Your task to perform on an android device: open device folders in google photos Image 0: 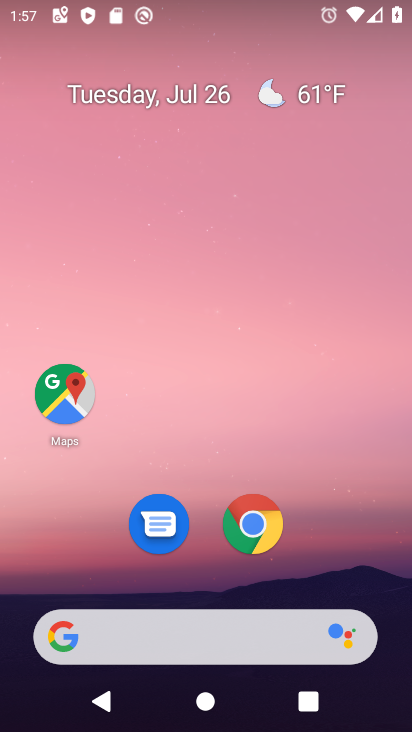
Step 0: press home button
Your task to perform on an android device: open device folders in google photos Image 1: 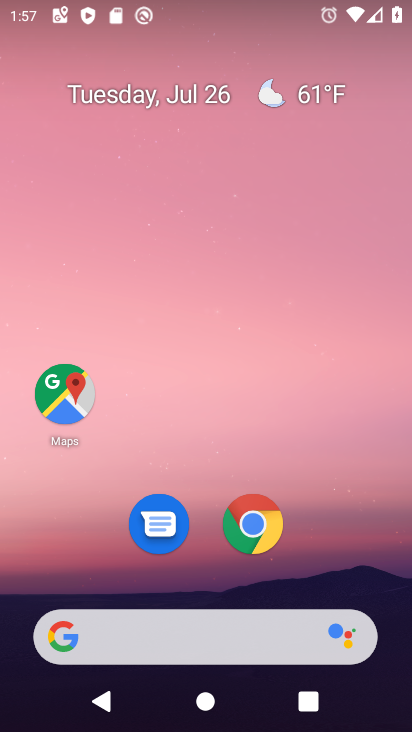
Step 1: drag from (217, 633) to (257, 88)
Your task to perform on an android device: open device folders in google photos Image 2: 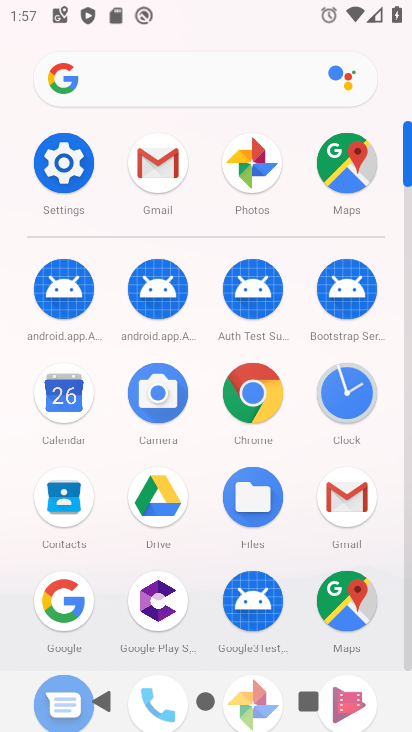
Step 2: click (253, 171)
Your task to perform on an android device: open device folders in google photos Image 3: 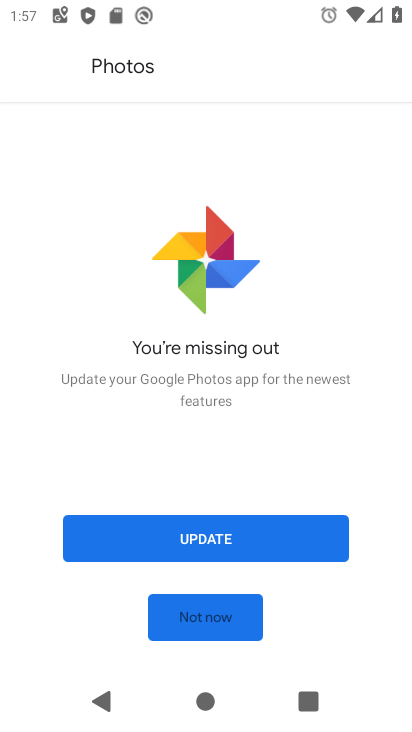
Step 3: click (199, 629)
Your task to perform on an android device: open device folders in google photos Image 4: 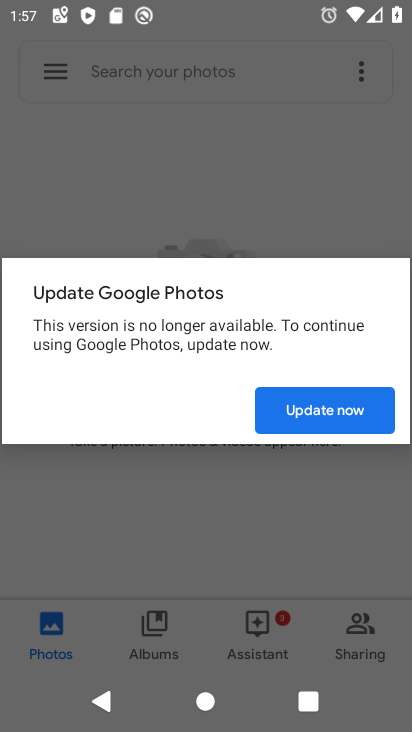
Step 4: click (339, 410)
Your task to perform on an android device: open device folders in google photos Image 5: 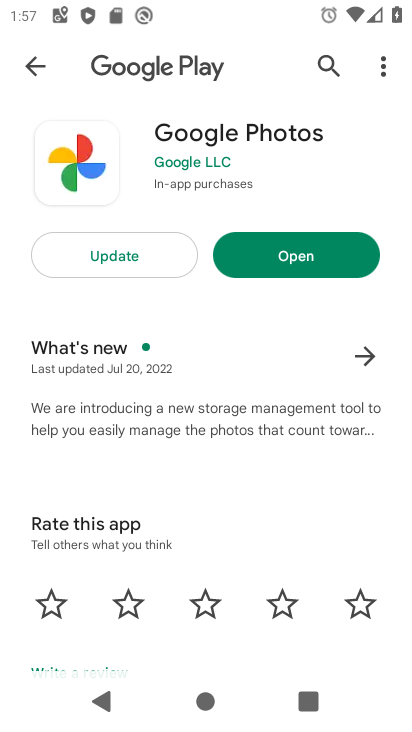
Step 5: click (141, 256)
Your task to perform on an android device: open device folders in google photos Image 6: 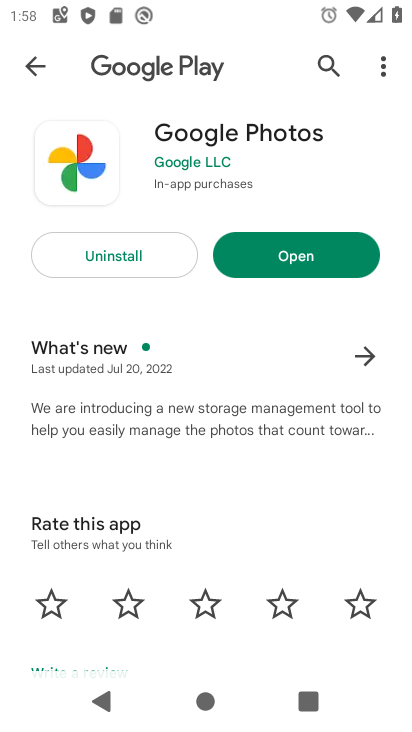
Step 6: click (296, 256)
Your task to perform on an android device: open device folders in google photos Image 7: 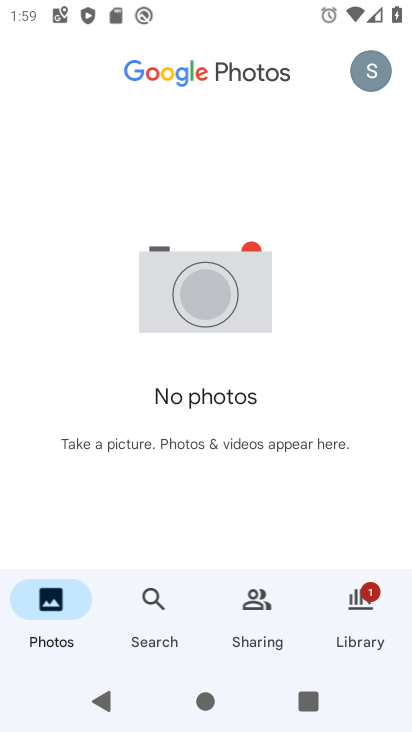
Step 7: click (373, 69)
Your task to perform on an android device: open device folders in google photos Image 8: 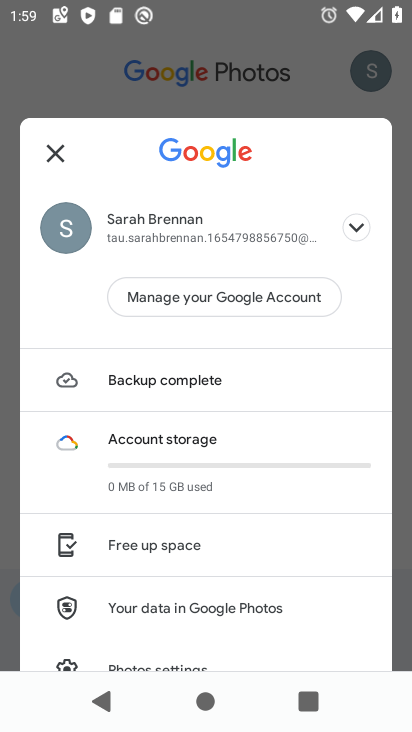
Step 8: drag from (201, 539) to (347, 125)
Your task to perform on an android device: open device folders in google photos Image 9: 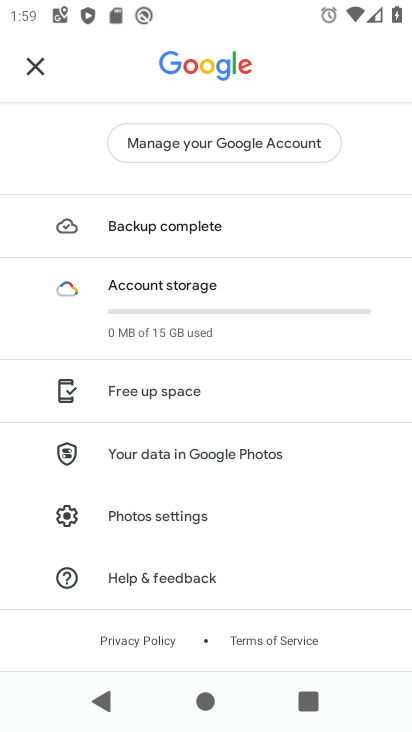
Step 9: drag from (230, 543) to (385, 89)
Your task to perform on an android device: open device folders in google photos Image 10: 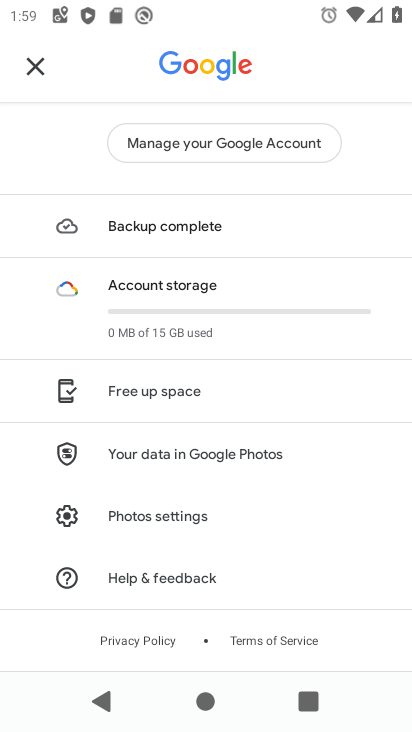
Step 10: click (198, 518)
Your task to perform on an android device: open device folders in google photos Image 11: 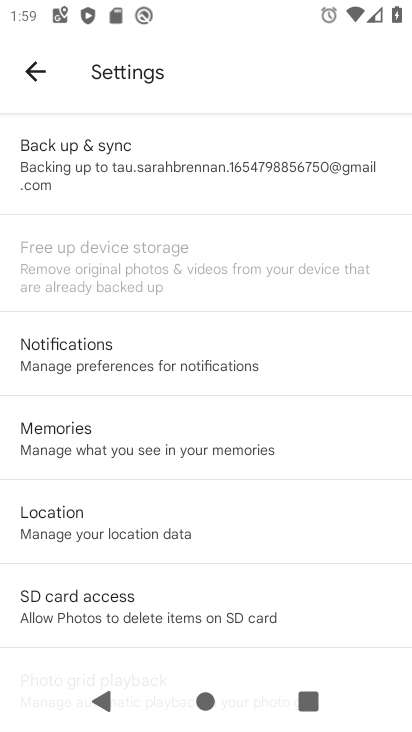
Step 11: task complete